Your task to perform on an android device: Open calendar and show me the fourth week of next month Image 0: 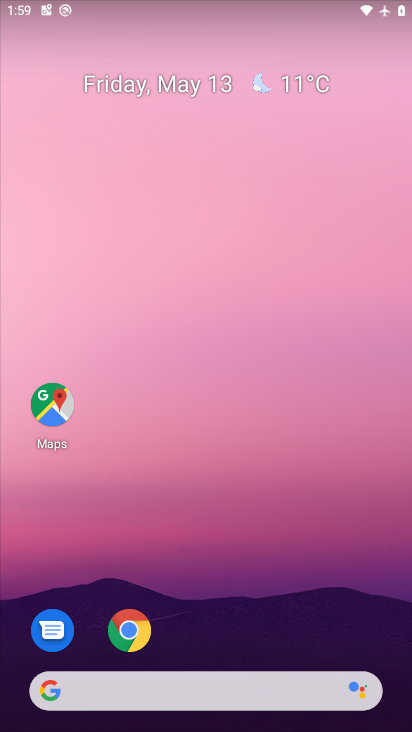
Step 0: drag from (206, 624) to (205, 202)
Your task to perform on an android device: Open calendar and show me the fourth week of next month Image 1: 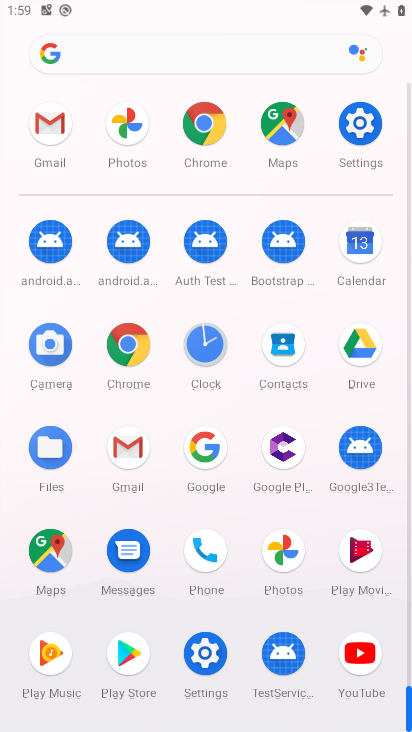
Step 1: click (355, 236)
Your task to perform on an android device: Open calendar and show me the fourth week of next month Image 2: 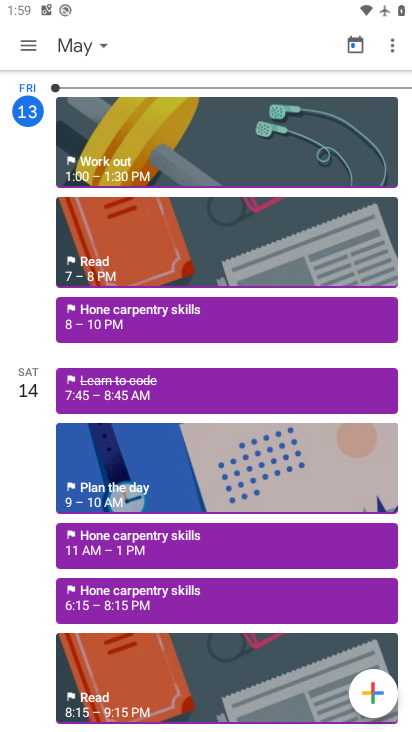
Step 2: click (97, 54)
Your task to perform on an android device: Open calendar and show me the fourth week of next month Image 3: 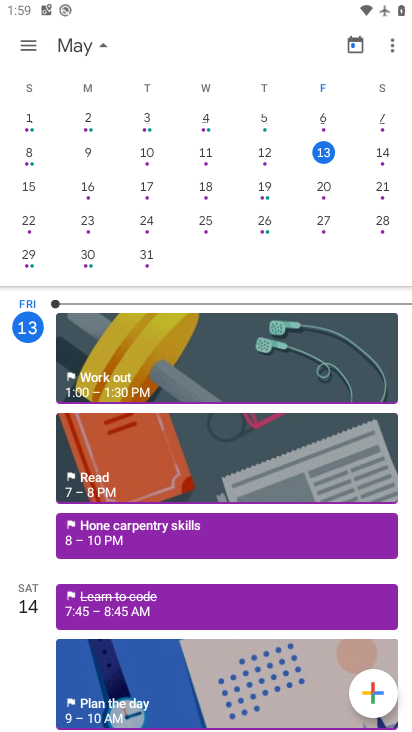
Step 3: drag from (311, 199) to (0, 186)
Your task to perform on an android device: Open calendar and show me the fourth week of next month Image 4: 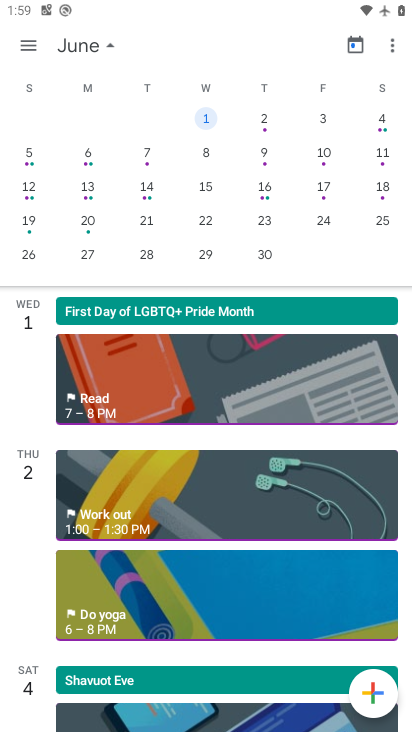
Step 4: click (36, 220)
Your task to perform on an android device: Open calendar and show me the fourth week of next month Image 5: 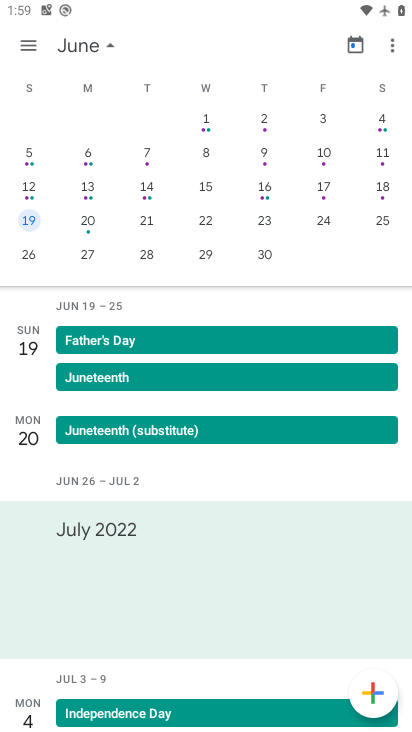
Step 5: click (98, 58)
Your task to perform on an android device: Open calendar and show me the fourth week of next month Image 6: 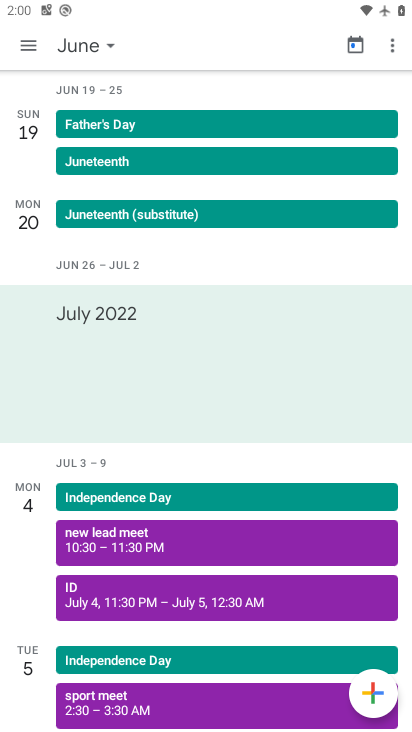
Step 6: task complete